Your task to perform on an android device: toggle location history Image 0: 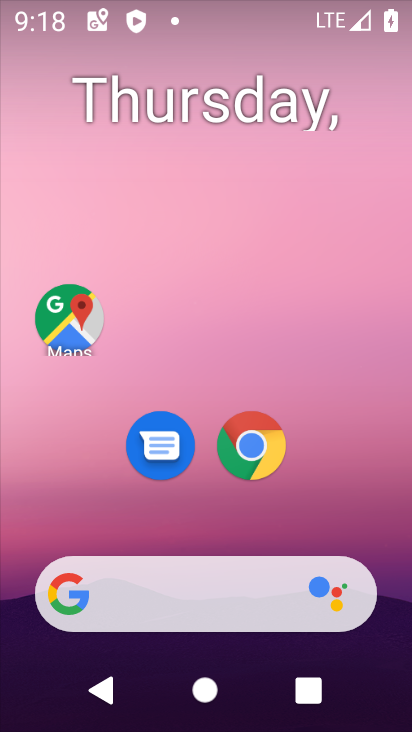
Step 0: drag from (65, 537) to (187, 59)
Your task to perform on an android device: toggle location history Image 1: 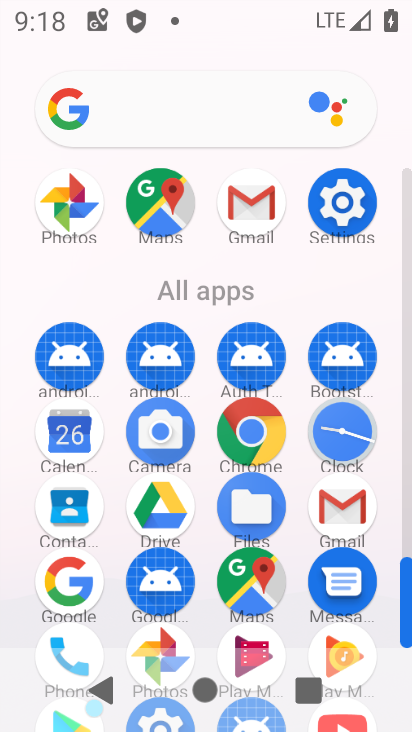
Step 1: drag from (164, 632) to (244, 331)
Your task to perform on an android device: toggle location history Image 2: 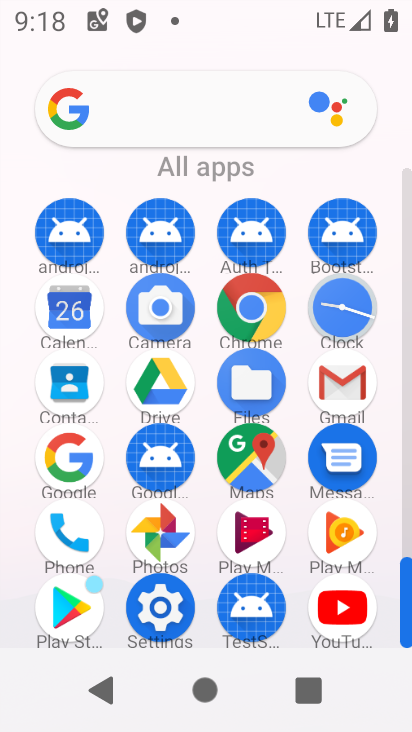
Step 2: click (159, 610)
Your task to perform on an android device: toggle location history Image 3: 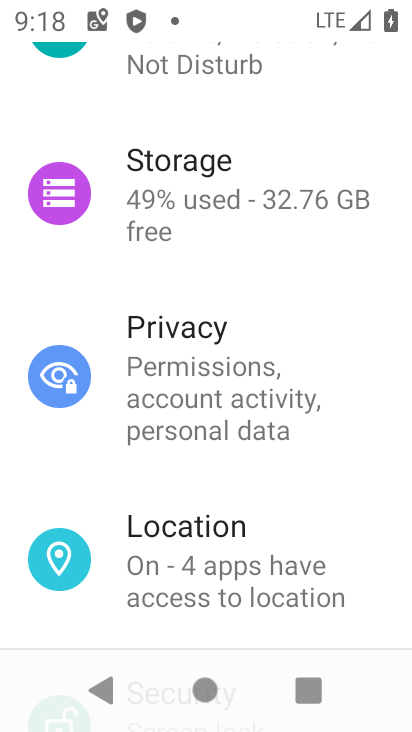
Step 3: click (189, 581)
Your task to perform on an android device: toggle location history Image 4: 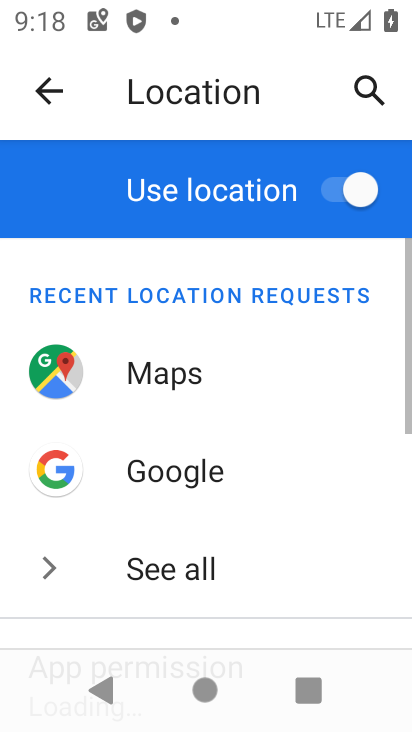
Step 4: drag from (168, 593) to (292, 168)
Your task to perform on an android device: toggle location history Image 5: 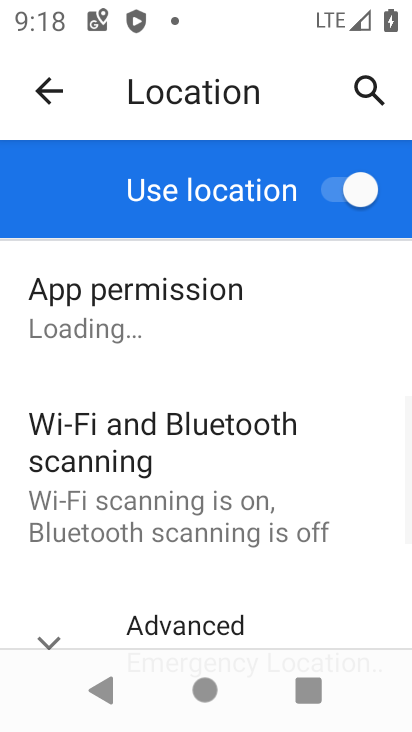
Step 5: drag from (168, 603) to (243, 253)
Your task to perform on an android device: toggle location history Image 6: 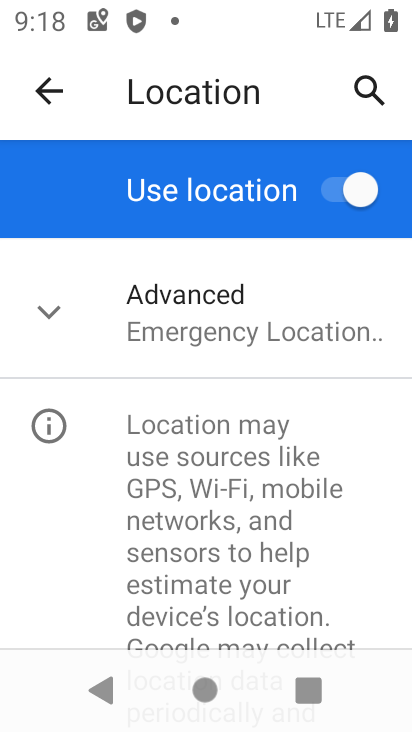
Step 6: click (225, 317)
Your task to perform on an android device: toggle location history Image 7: 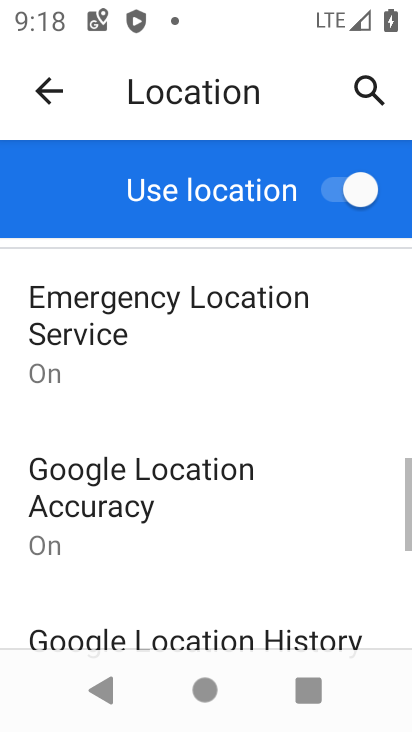
Step 7: drag from (134, 572) to (263, 151)
Your task to perform on an android device: toggle location history Image 8: 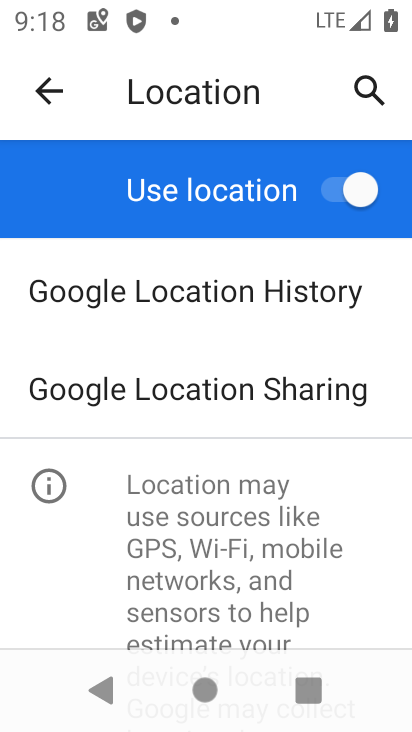
Step 8: click (242, 302)
Your task to perform on an android device: toggle location history Image 9: 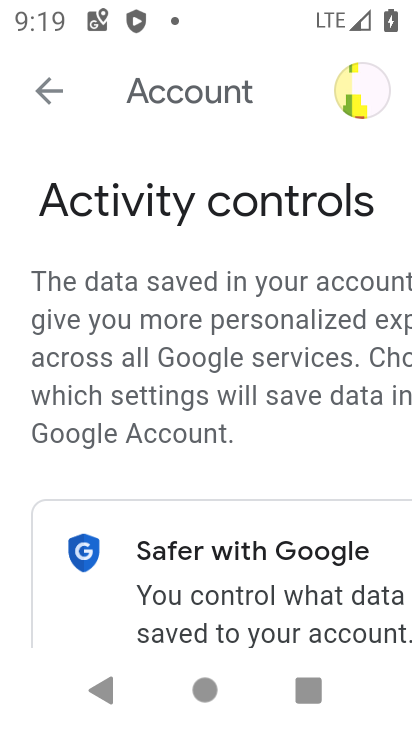
Step 9: drag from (101, 591) to (250, 108)
Your task to perform on an android device: toggle location history Image 10: 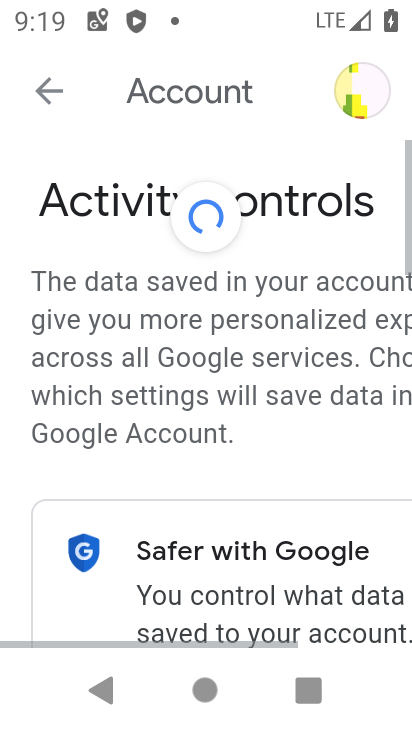
Step 10: drag from (152, 610) to (303, 69)
Your task to perform on an android device: toggle location history Image 11: 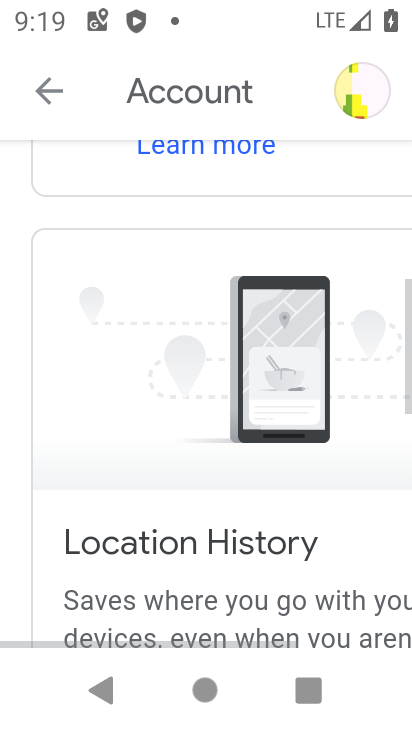
Step 11: drag from (140, 584) to (267, 75)
Your task to perform on an android device: toggle location history Image 12: 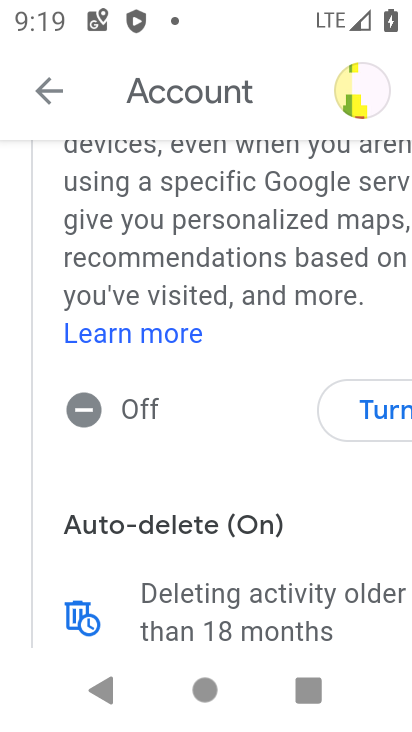
Step 12: click (408, 408)
Your task to perform on an android device: toggle location history Image 13: 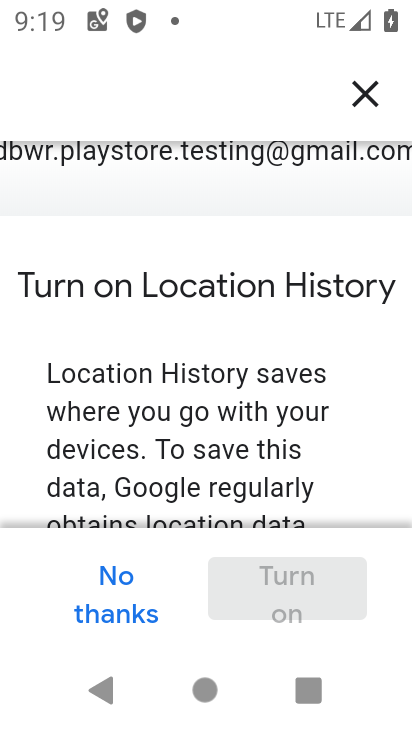
Step 13: drag from (100, 483) to (260, 0)
Your task to perform on an android device: toggle location history Image 14: 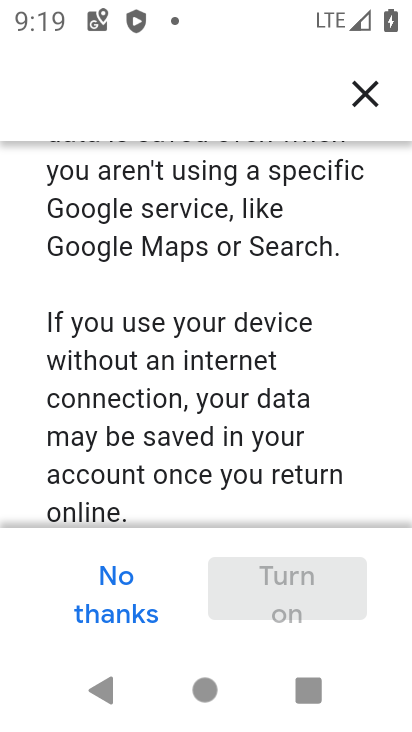
Step 14: drag from (132, 560) to (254, 119)
Your task to perform on an android device: toggle location history Image 15: 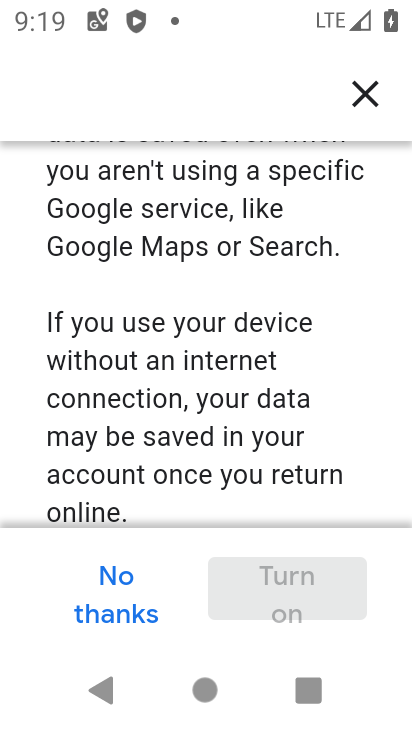
Step 15: drag from (109, 464) to (308, 108)
Your task to perform on an android device: toggle location history Image 16: 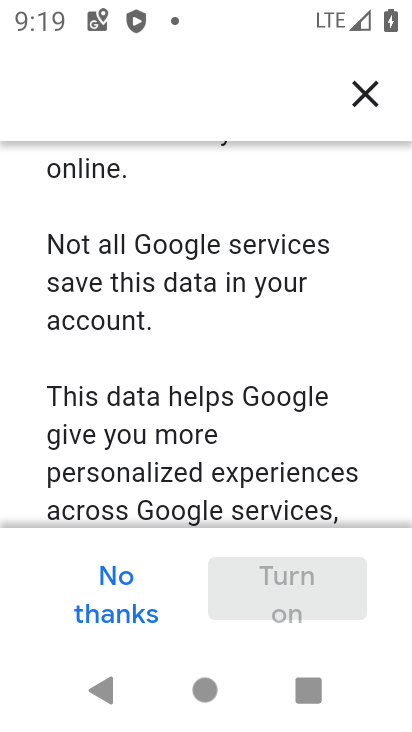
Step 16: drag from (218, 496) to (320, 75)
Your task to perform on an android device: toggle location history Image 17: 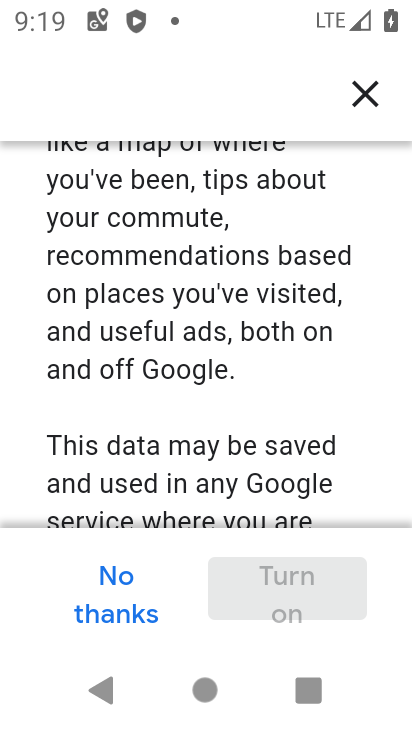
Step 17: drag from (186, 486) to (298, 104)
Your task to perform on an android device: toggle location history Image 18: 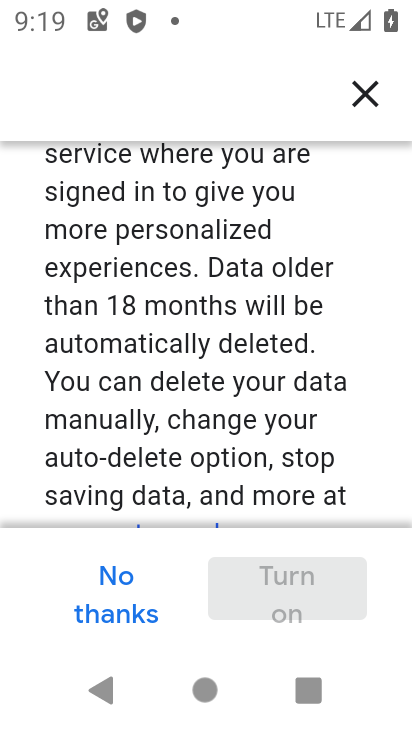
Step 18: drag from (183, 454) to (313, 69)
Your task to perform on an android device: toggle location history Image 19: 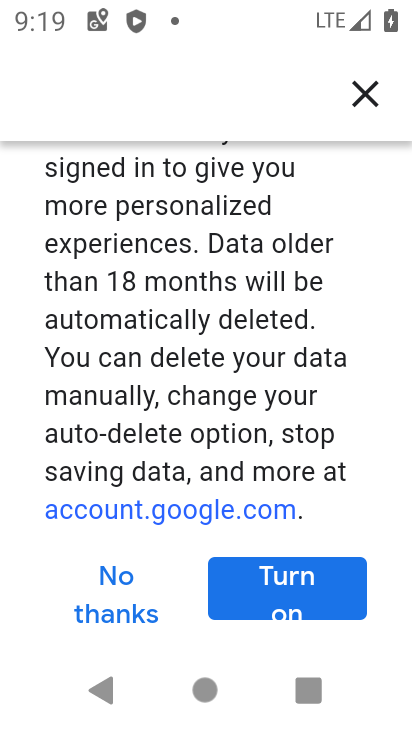
Step 19: click (267, 598)
Your task to perform on an android device: toggle location history Image 20: 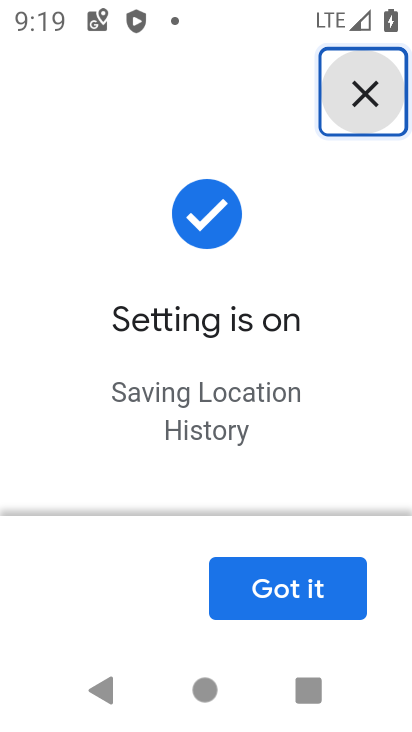
Step 20: click (252, 594)
Your task to perform on an android device: toggle location history Image 21: 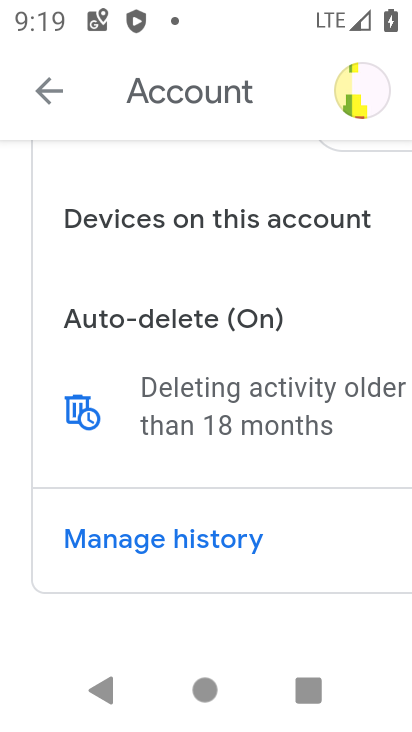
Step 21: task complete